Your task to perform on an android device: Open calendar and show me the second week of next month Image 0: 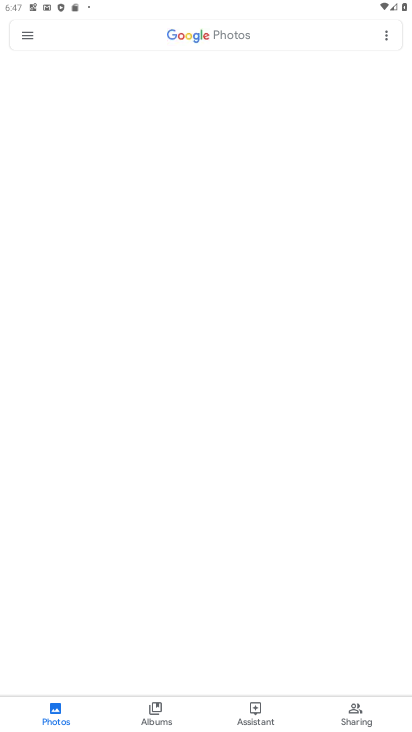
Step 0: press home button
Your task to perform on an android device: Open calendar and show me the second week of next month Image 1: 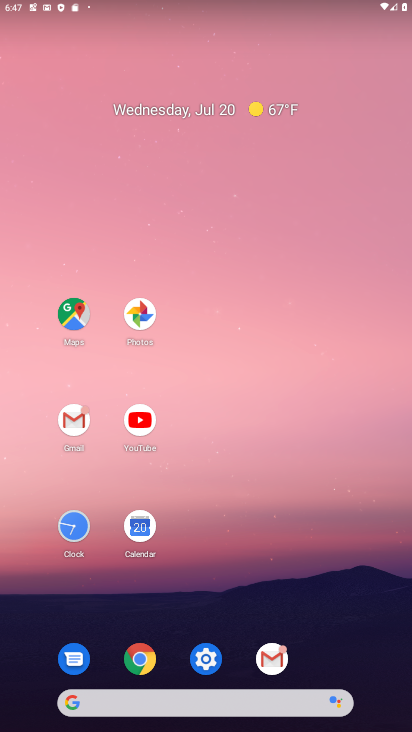
Step 1: click (139, 526)
Your task to perform on an android device: Open calendar and show me the second week of next month Image 2: 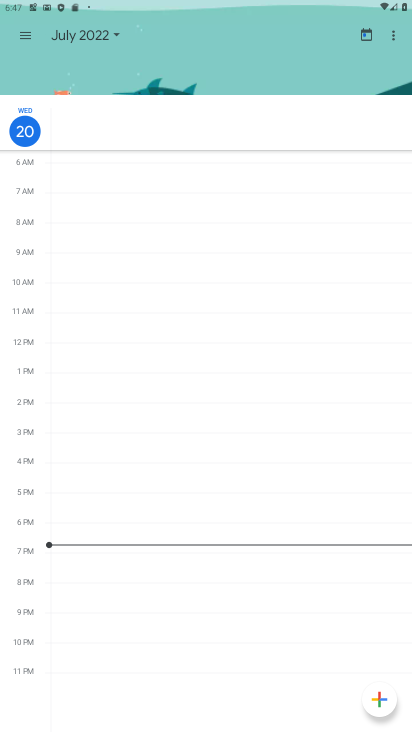
Step 2: click (24, 33)
Your task to perform on an android device: Open calendar and show me the second week of next month Image 3: 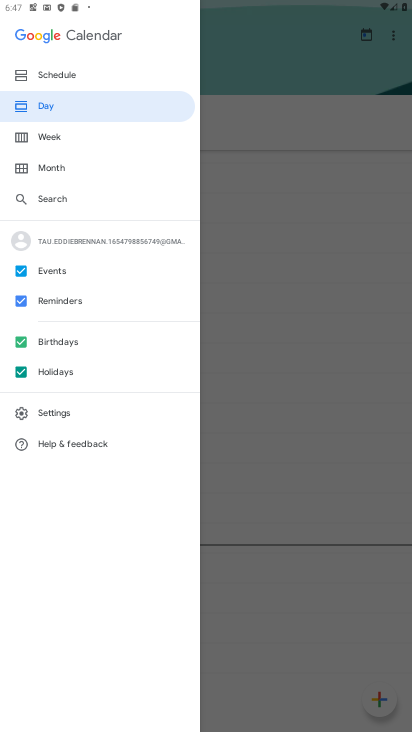
Step 3: click (48, 139)
Your task to perform on an android device: Open calendar and show me the second week of next month Image 4: 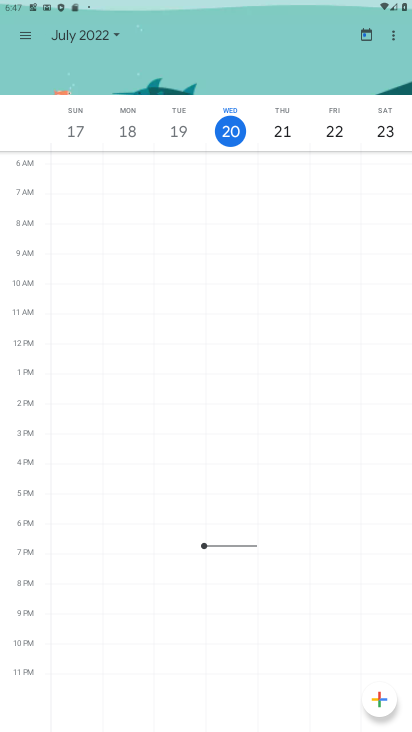
Step 4: click (117, 36)
Your task to perform on an android device: Open calendar and show me the second week of next month Image 5: 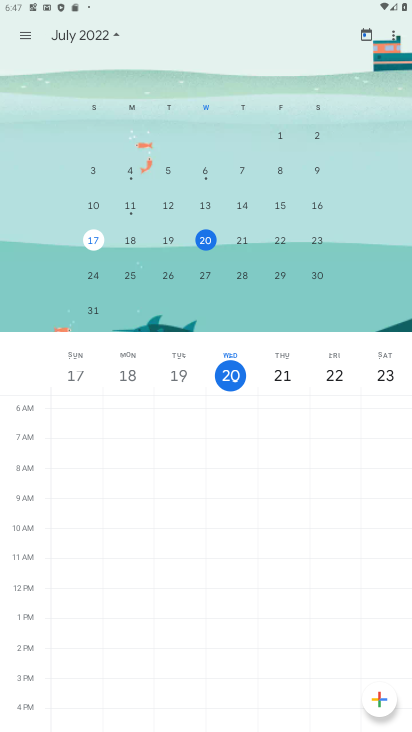
Step 5: drag from (340, 183) to (26, 157)
Your task to perform on an android device: Open calendar and show me the second week of next month Image 6: 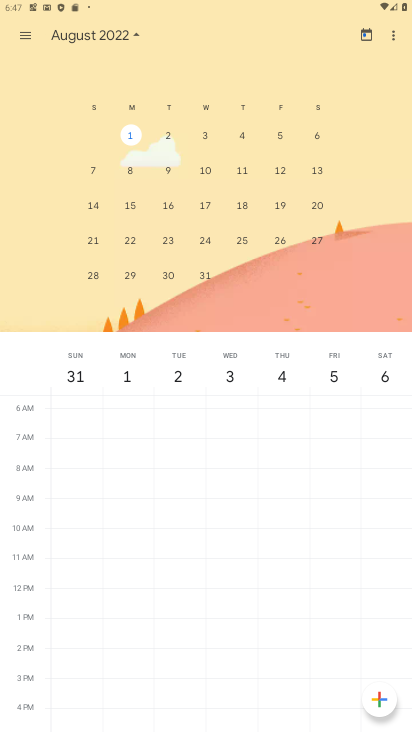
Step 6: click (129, 165)
Your task to perform on an android device: Open calendar and show me the second week of next month Image 7: 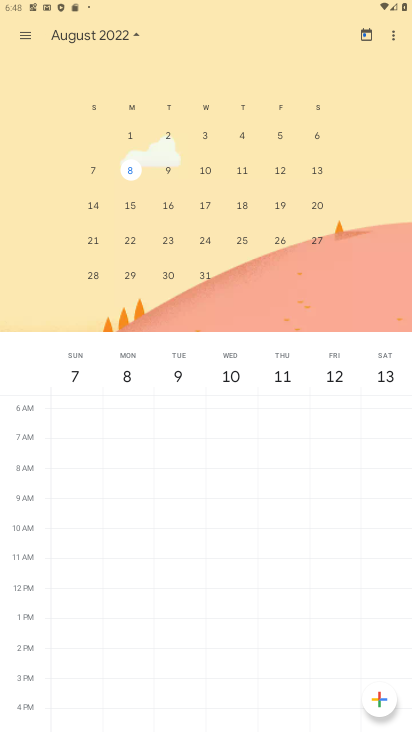
Step 7: task complete